Your task to perform on an android device: find photos in the google photos app Image 0: 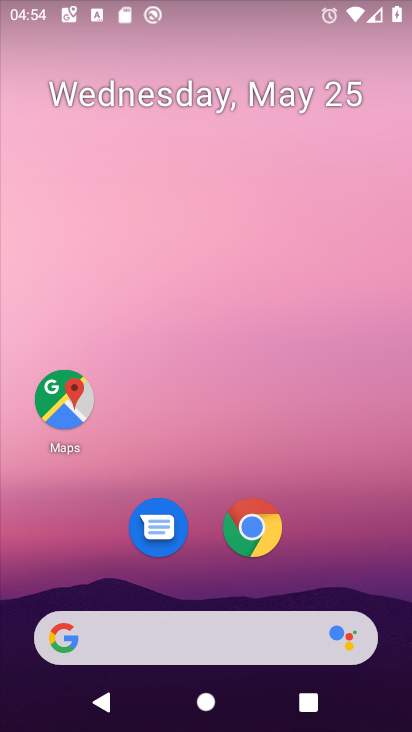
Step 0: drag from (186, 468) to (211, 90)
Your task to perform on an android device: find photos in the google photos app Image 1: 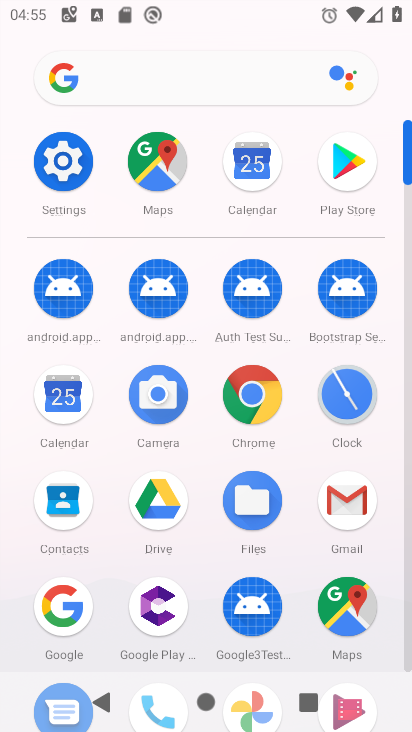
Step 1: drag from (316, 601) to (336, 321)
Your task to perform on an android device: find photos in the google photos app Image 2: 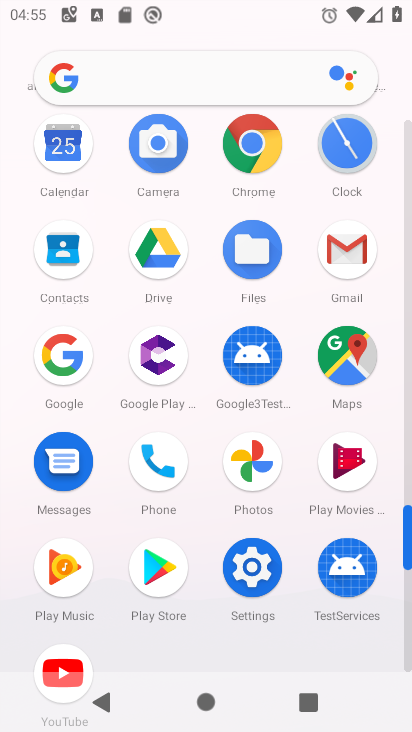
Step 2: click (260, 455)
Your task to perform on an android device: find photos in the google photos app Image 3: 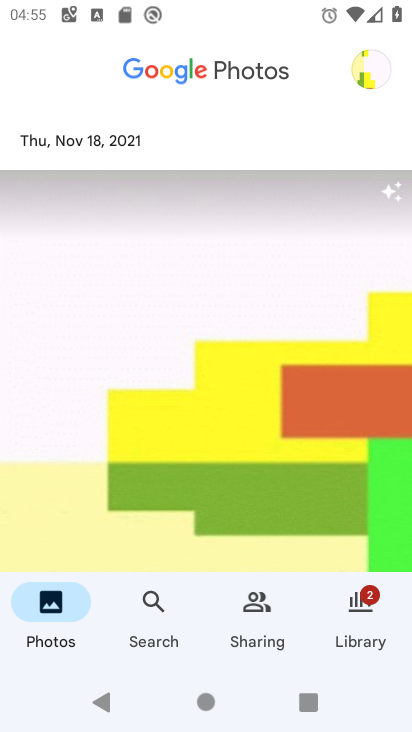
Step 3: task complete